Your task to perform on an android device: turn off notifications in google photos Image 0: 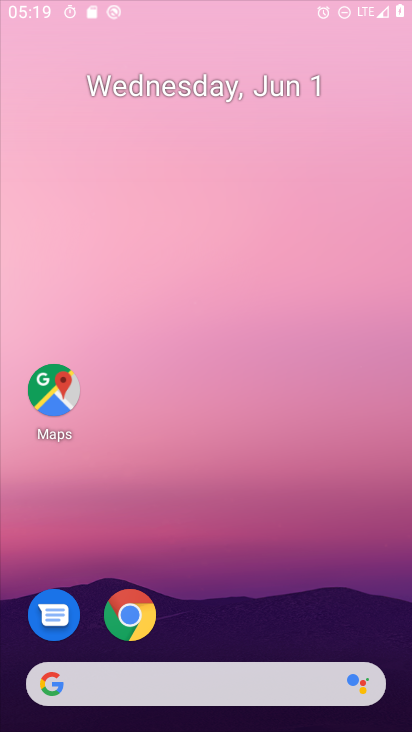
Step 0: drag from (257, 679) to (254, 86)
Your task to perform on an android device: turn off notifications in google photos Image 1: 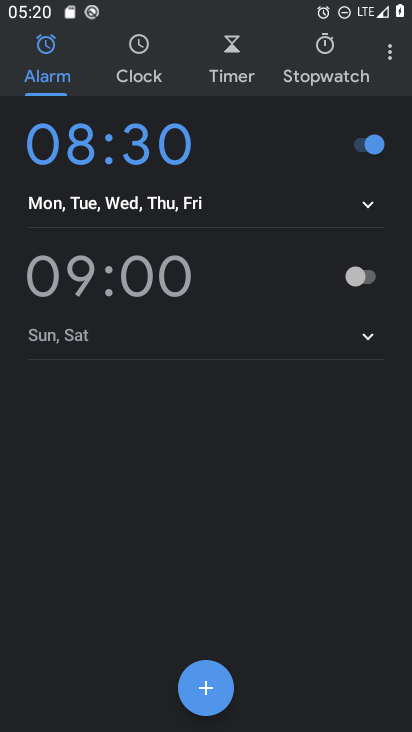
Step 1: press home button
Your task to perform on an android device: turn off notifications in google photos Image 2: 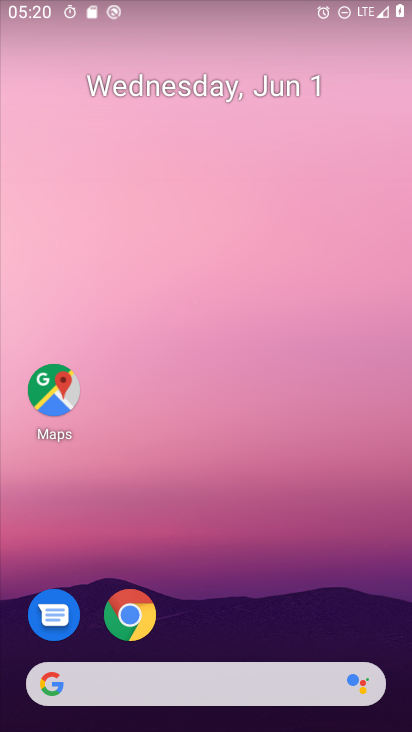
Step 2: drag from (309, 631) to (366, 14)
Your task to perform on an android device: turn off notifications in google photos Image 3: 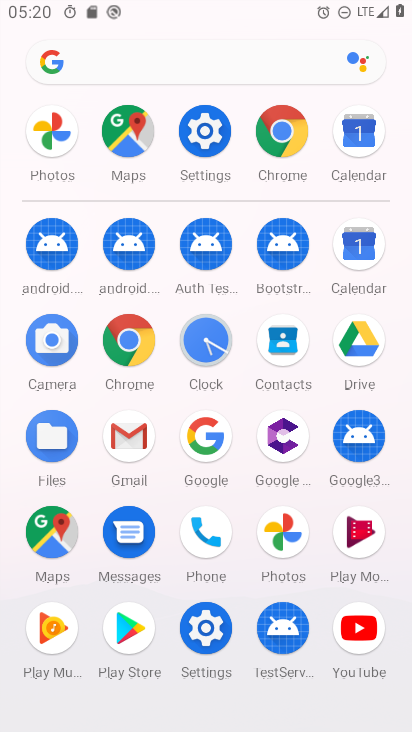
Step 3: click (271, 520)
Your task to perform on an android device: turn off notifications in google photos Image 4: 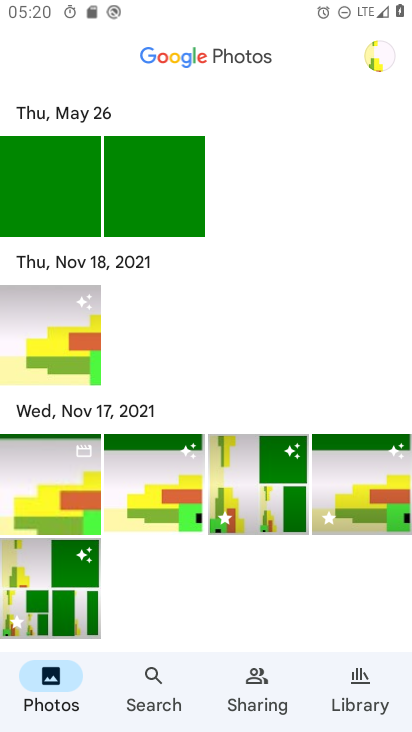
Step 4: click (384, 57)
Your task to perform on an android device: turn off notifications in google photos Image 5: 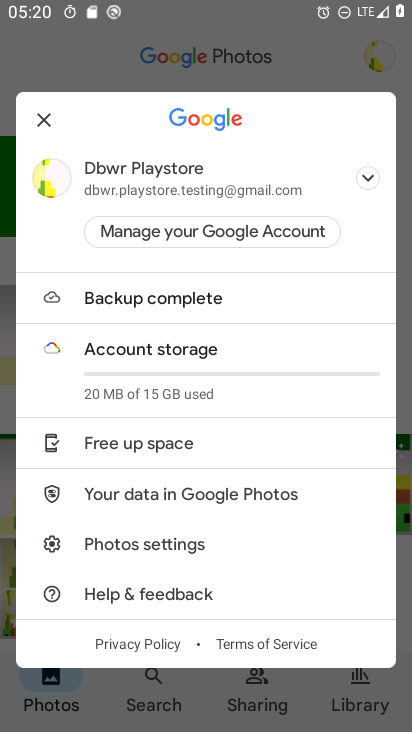
Step 5: click (173, 531)
Your task to perform on an android device: turn off notifications in google photos Image 6: 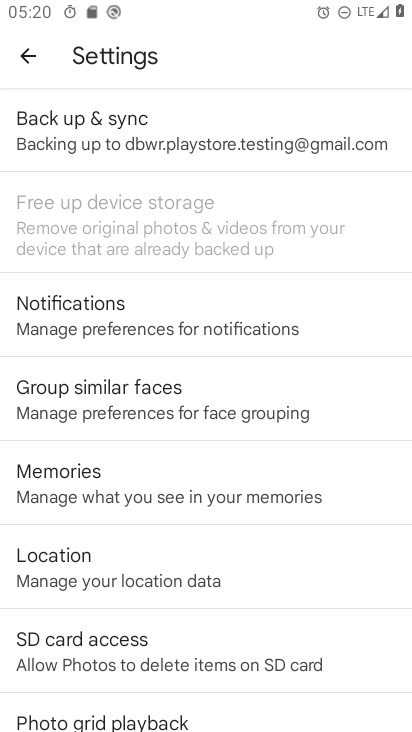
Step 6: click (168, 336)
Your task to perform on an android device: turn off notifications in google photos Image 7: 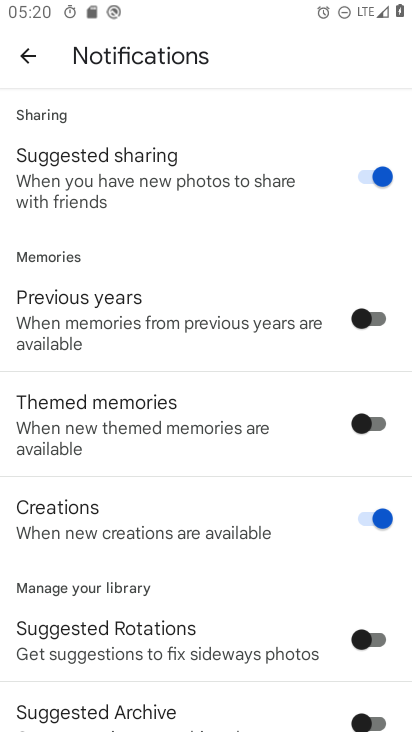
Step 7: drag from (285, 647) to (239, 41)
Your task to perform on an android device: turn off notifications in google photos Image 8: 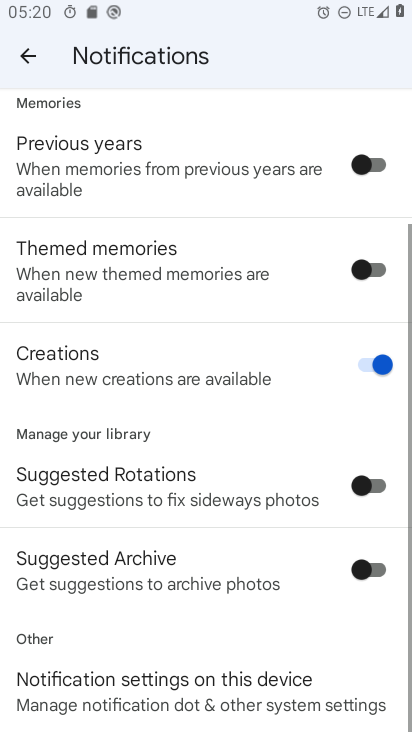
Step 8: click (257, 694)
Your task to perform on an android device: turn off notifications in google photos Image 9: 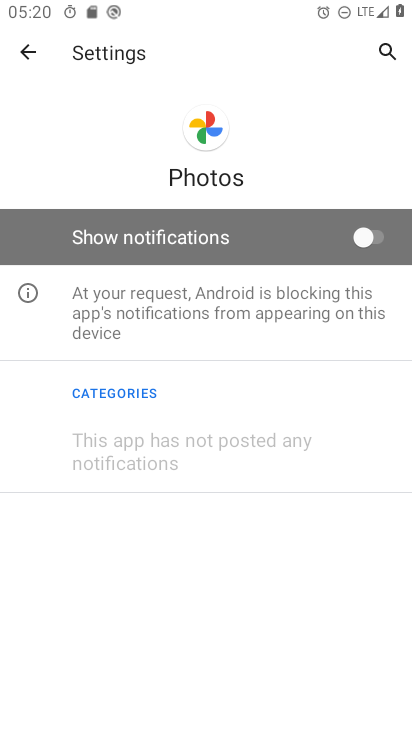
Step 9: task complete